Your task to perform on an android device: Open Yahoo.com Image 0: 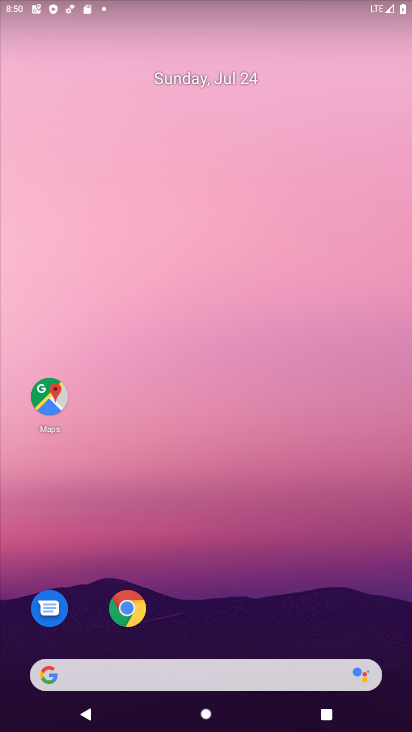
Step 0: click (132, 615)
Your task to perform on an android device: Open Yahoo.com Image 1: 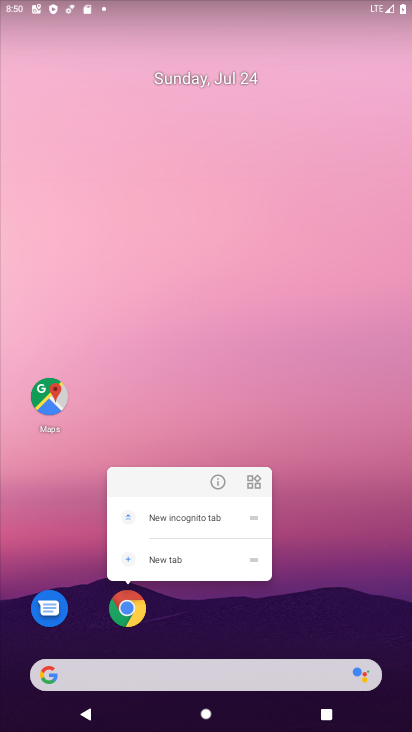
Step 1: click (134, 616)
Your task to perform on an android device: Open Yahoo.com Image 2: 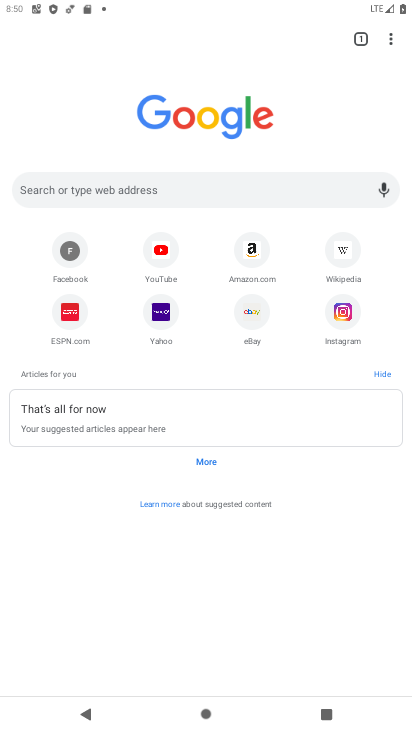
Step 2: click (157, 331)
Your task to perform on an android device: Open Yahoo.com Image 3: 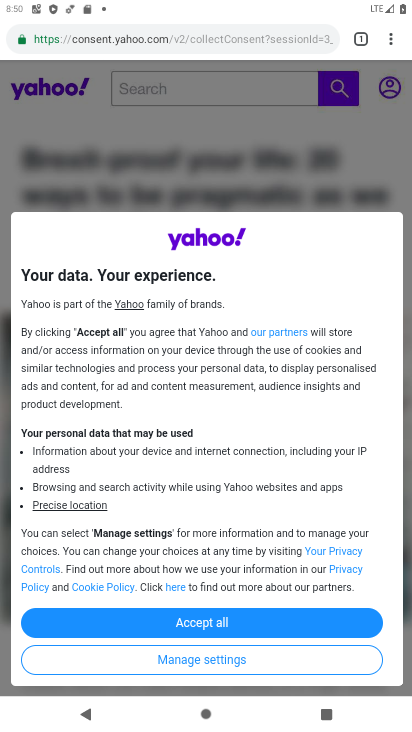
Step 3: task complete